Your task to perform on an android device: toggle wifi Image 0: 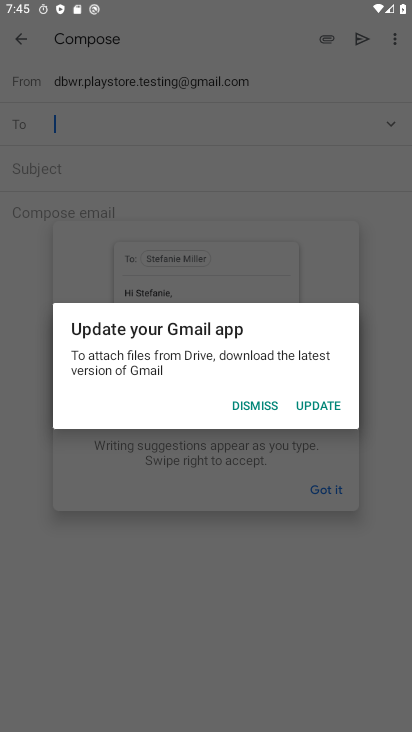
Step 0: press home button
Your task to perform on an android device: toggle wifi Image 1: 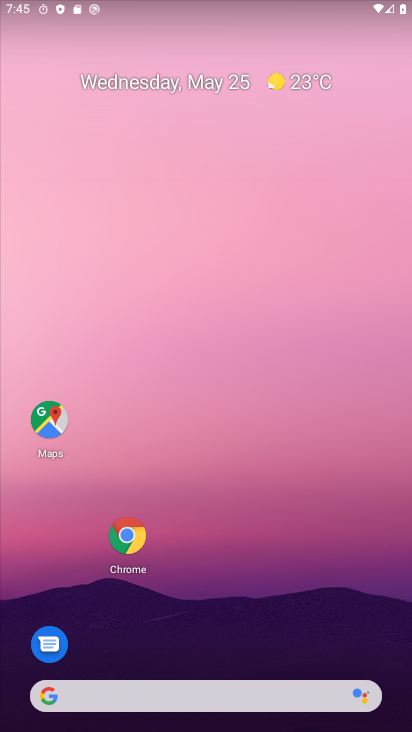
Step 1: press home button
Your task to perform on an android device: toggle wifi Image 2: 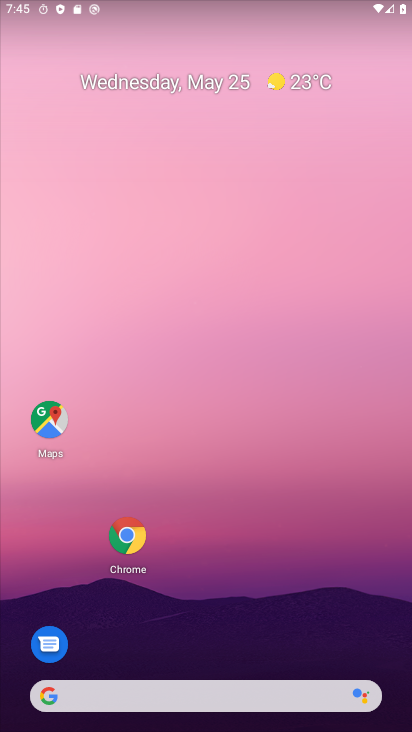
Step 2: drag from (184, 669) to (158, 125)
Your task to perform on an android device: toggle wifi Image 3: 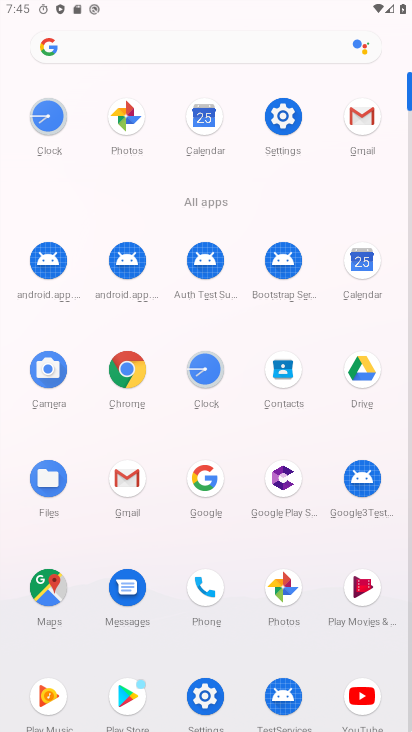
Step 3: click (281, 111)
Your task to perform on an android device: toggle wifi Image 4: 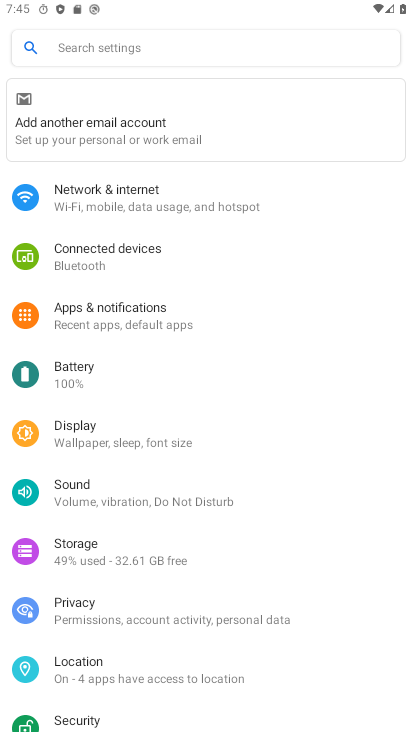
Step 4: click (120, 213)
Your task to perform on an android device: toggle wifi Image 5: 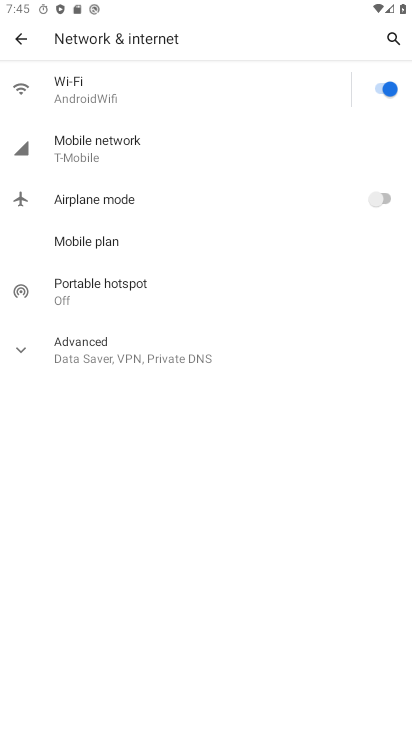
Step 5: click (386, 81)
Your task to perform on an android device: toggle wifi Image 6: 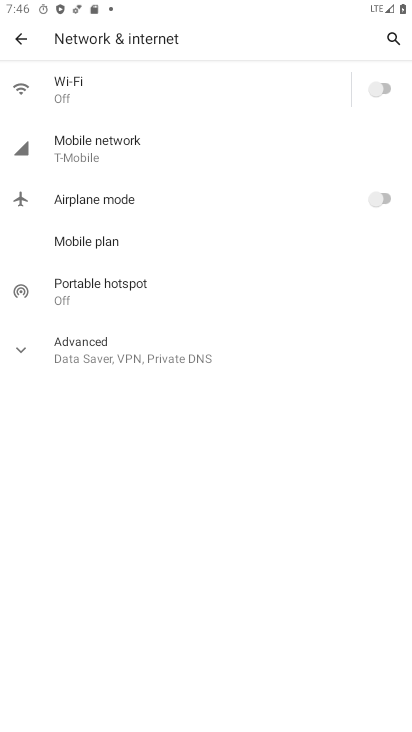
Step 6: task complete